Your task to perform on an android device: Open wifi settings Image 0: 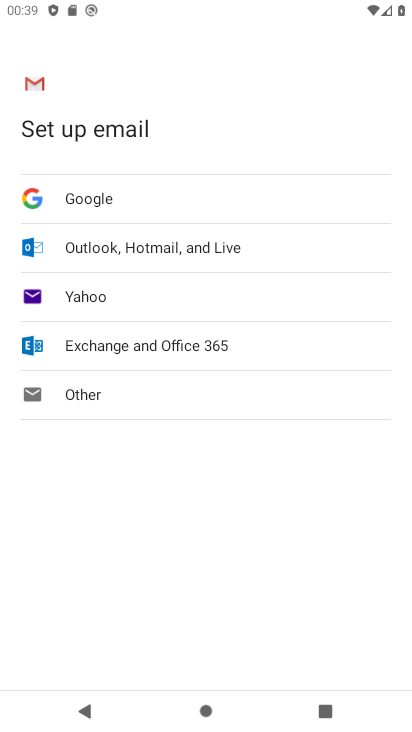
Step 0: press home button
Your task to perform on an android device: Open wifi settings Image 1: 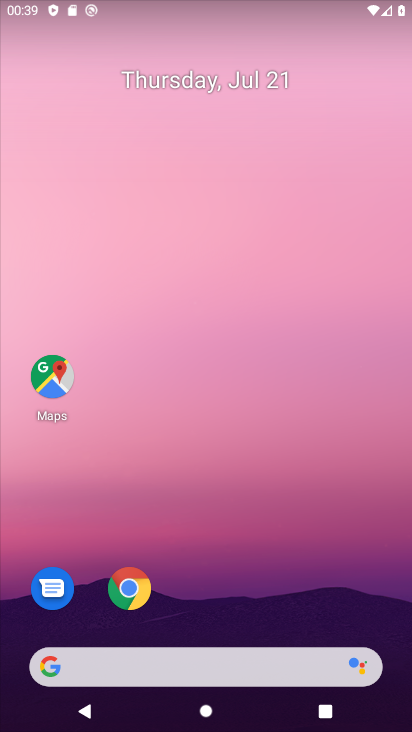
Step 1: drag from (97, 1) to (84, 565)
Your task to perform on an android device: Open wifi settings Image 2: 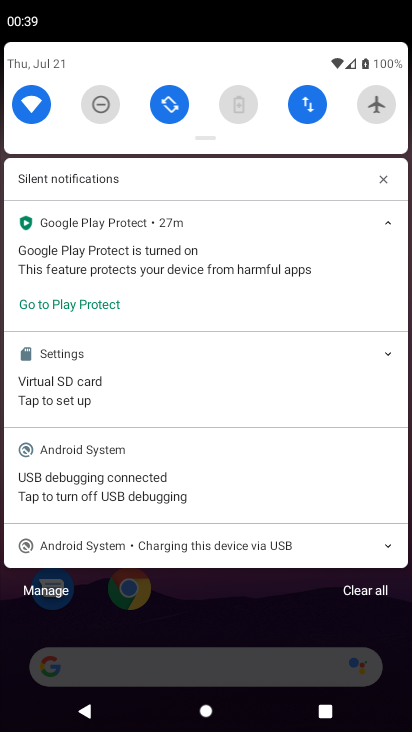
Step 2: click (37, 117)
Your task to perform on an android device: Open wifi settings Image 3: 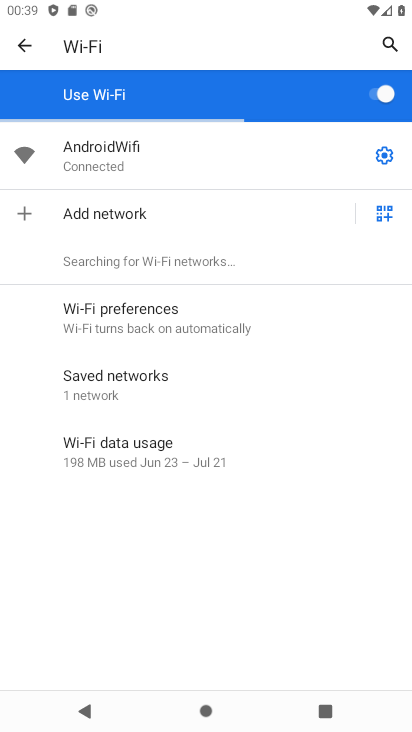
Step 3: task complete